Your task to perform on an android device: turn on sleep mode Image 0: 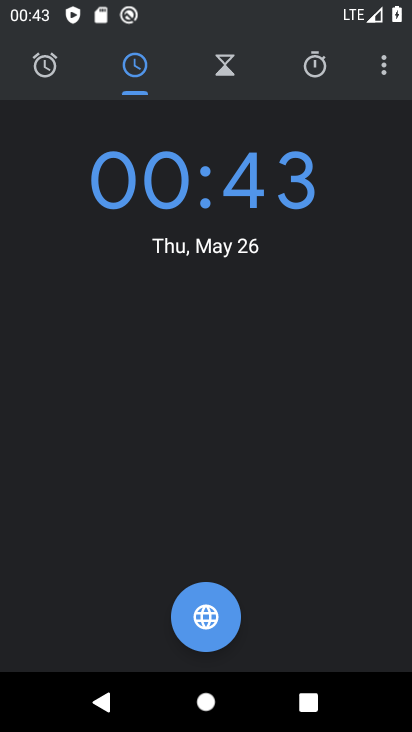
Step 0: press home button
Your task to perform on an android device: turn on sleep mode Image 1: 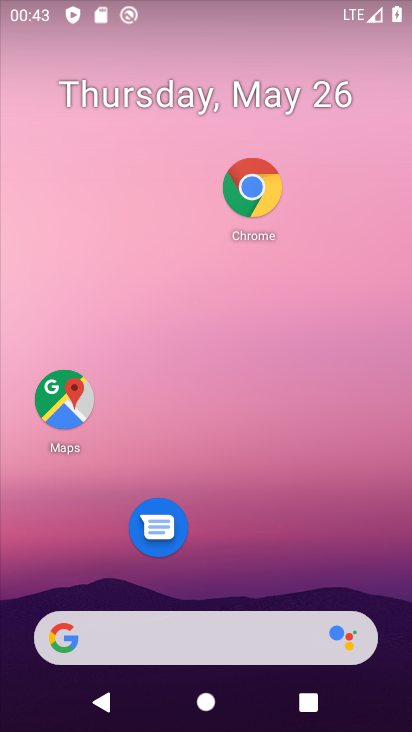
Step 1: drag from (229, 589) to (192, 60)
Your task to perform on an android device: turn on sleep mode Image 2: 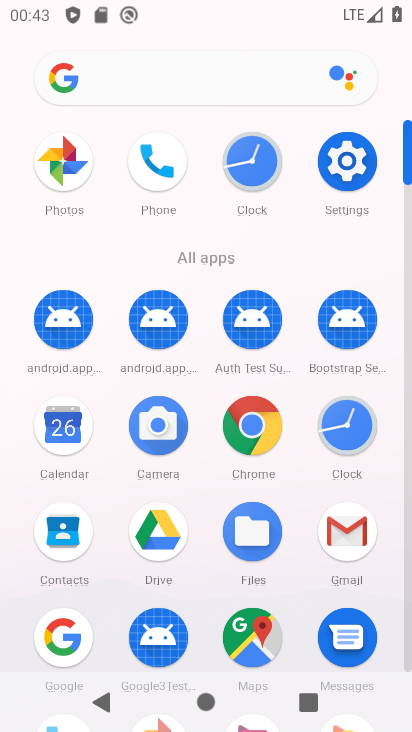
Step 2: click (348, 150)
Your task to perform on an android device: turn on sleep mode Image 3: 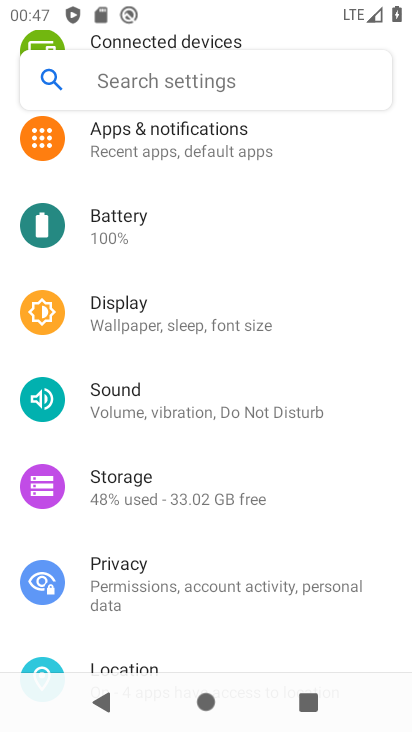
Step 3: task complete